Your task to perform on an android device: Open internet settings Image 0: 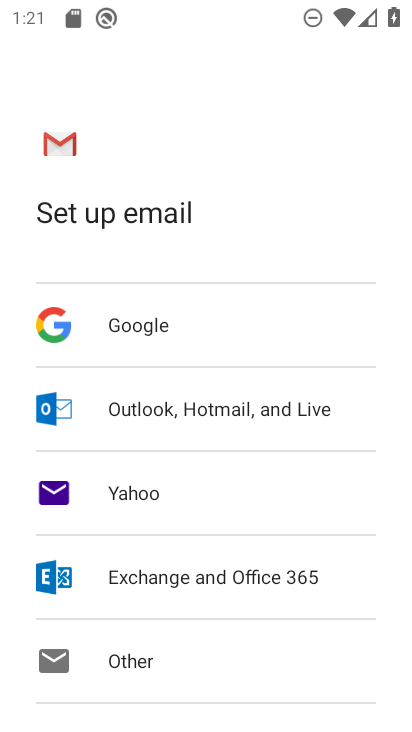
Step 0: press home button
Your task to perform on an android device: Open internet settings Image 1: 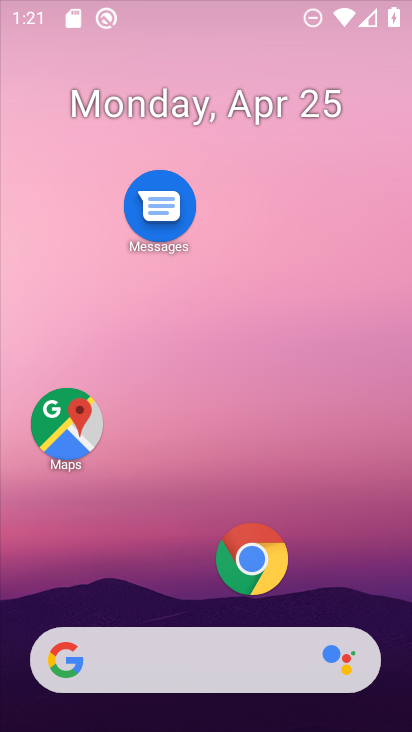
Step 1: drag from (186, 555) to (196, 93)
Your task to perform on an android device: Open internet settings Image 2: 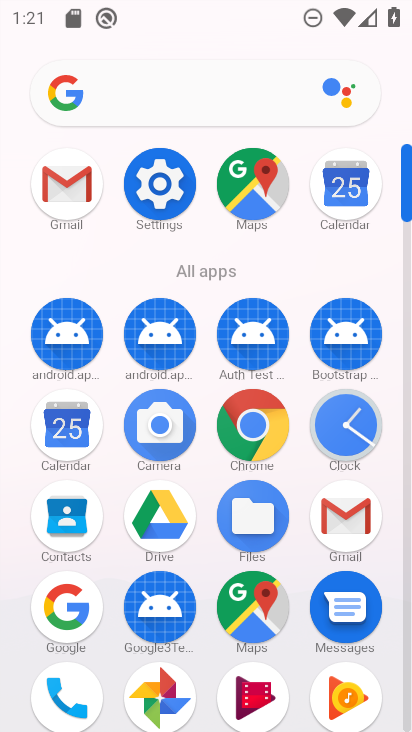
Step 2: click (165, 181)
Your task to perform on an android device: Open internet settings Image 3: 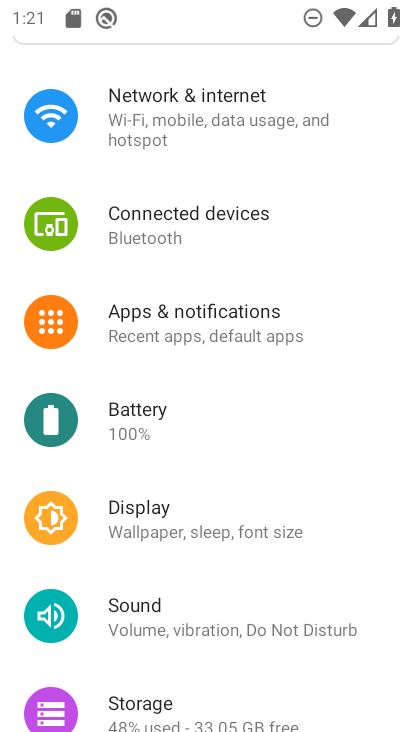
Step 3: click (176, 114)
Your task to perform on an android device: Open internet settings Image 4: 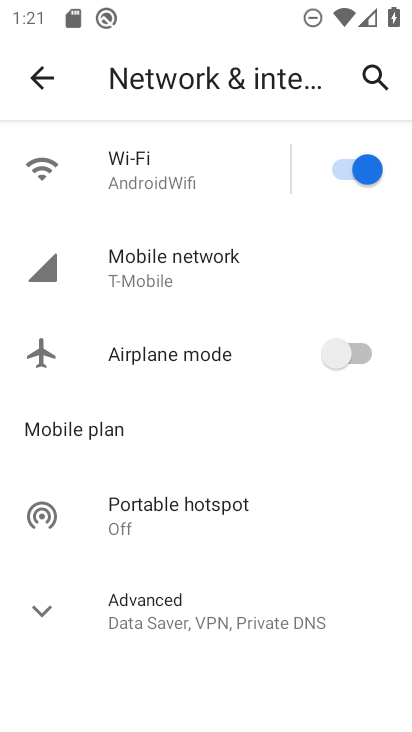
Step 4: click (174, 168)
Your task to perform on an android device: Open internet settings Image 5: 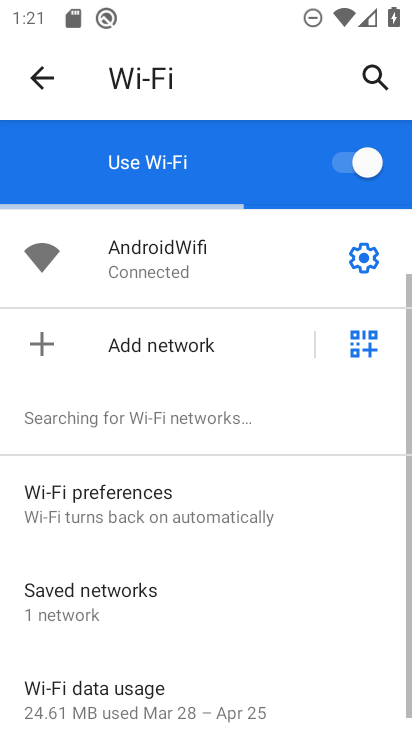
Step 5: click (230, 246)
Your task to perform on an android device: Open internet settings Image 6: 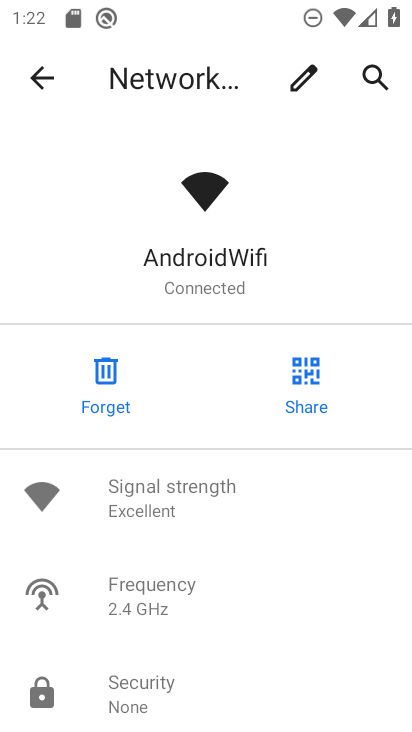
Step 6: task complete